Your task to perform on an android device: turn notification dots off Image 0: 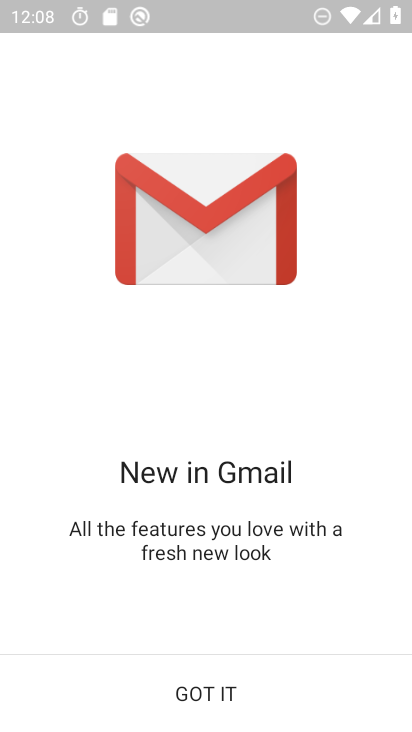
Step 0: press back button
Your task to perform on an android device: turn notification dots off Image 1: 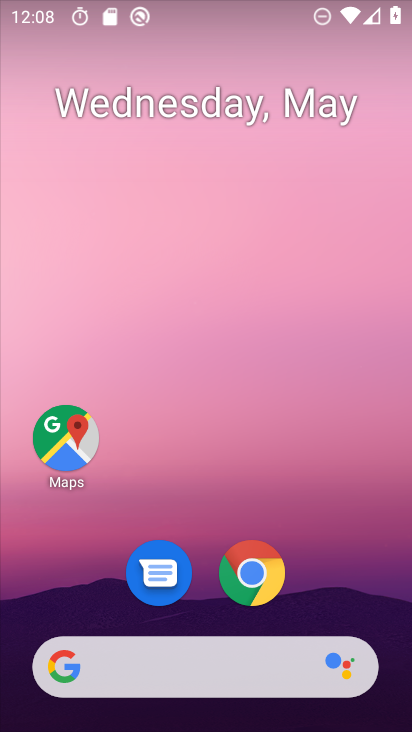
Step 1: drag from (337, 591) to (291, 59)
Your task to perform on an android device: turn notification dots off Image 2: 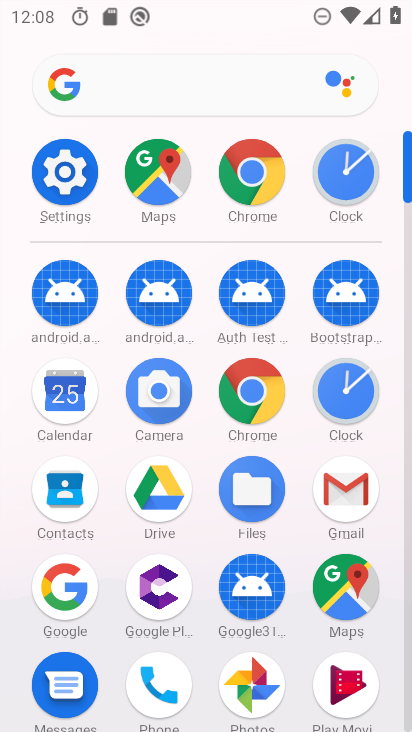
Step 2: click (65, 171)
Your task to perform on an android device: turn notification dots off Image 3: 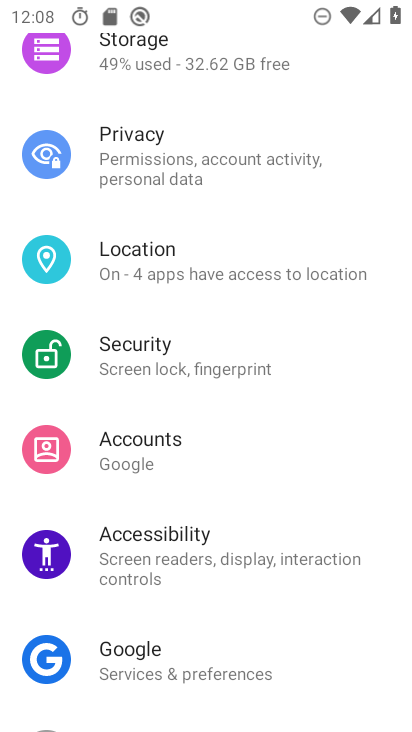
Step 3: drag from (270, 153) to (261, 621)
Your task to perform on an android device: turn notification dots off Image 4: 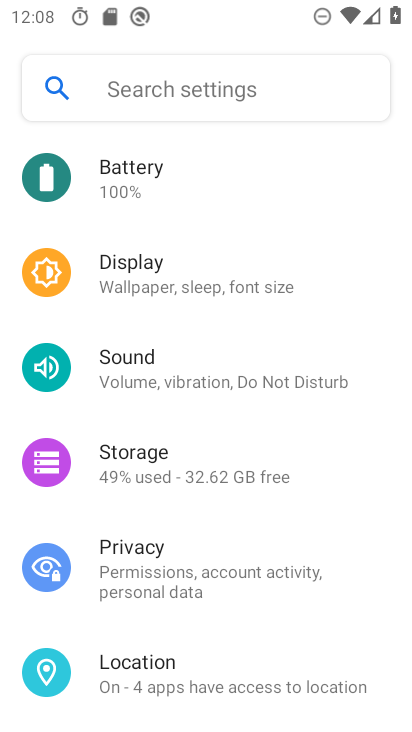
Step 4: drag from (246, 598) to (295, 175)
Your task to perform on an android device: turn notification dots off Image 5: 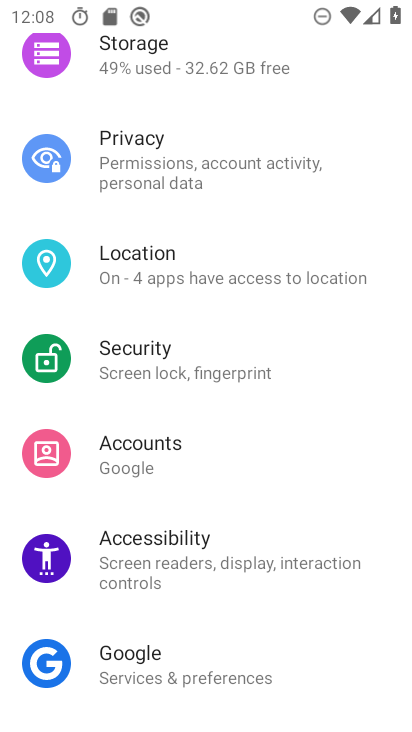
Step 5: drag from (247, 141) to (257, 453)
Your task to perform on an android device: turn notification dots off Image 6: 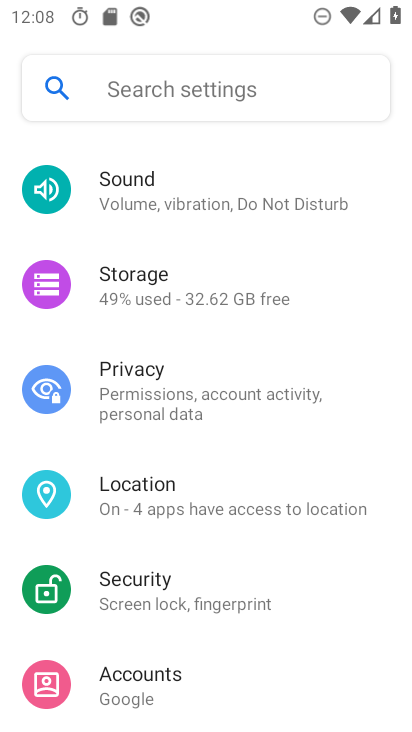
Step 6: drag from (266, 218) to (268, 555)
Your task to perform on an android device: turn notification dots off Image 7: 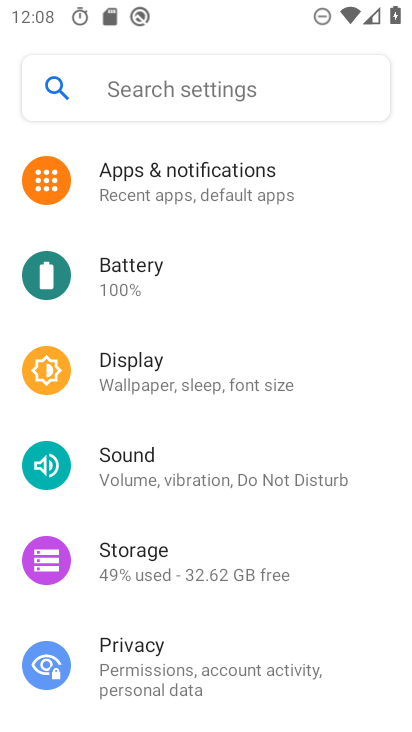
Step 7: click (242, 186)
Your task to perform on an android device: turn notification dots off Image 8: 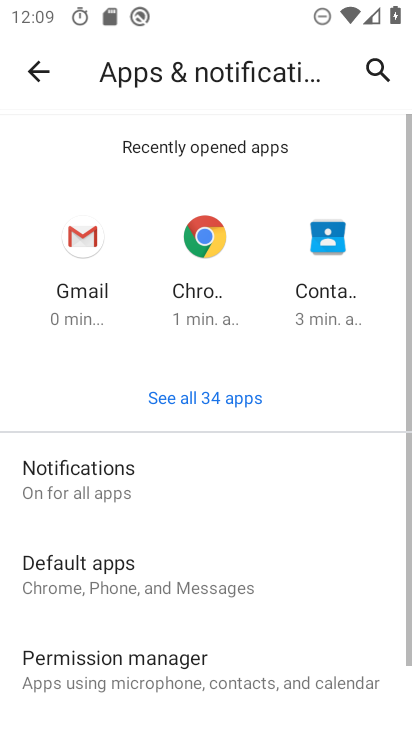
Step 8: drag from (266, 651) to (316, 223)
Your task to perform on an android device: turn notification dots off Image 9: 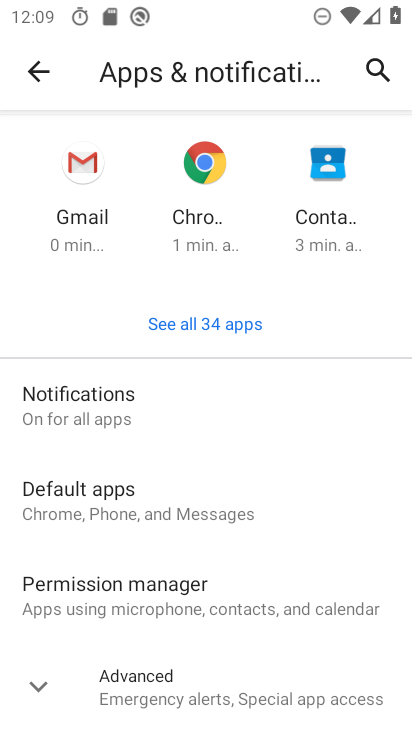
Step 9: click (114, 696)
Your task to perform on an android device: turn notification dots off Image 10: 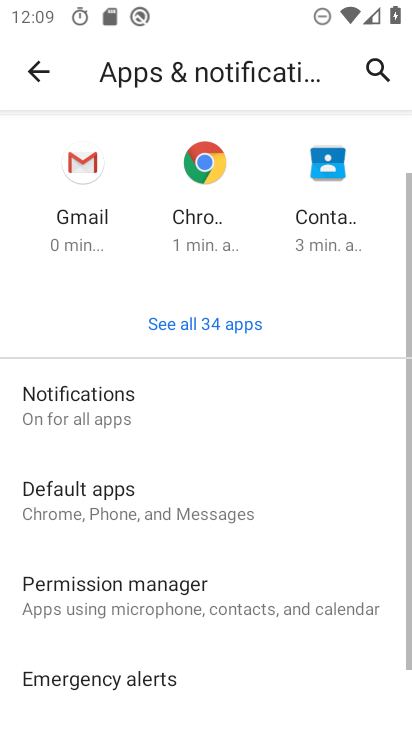
Step 10: drag from (236, 618) to (236, 253)
Your task to perform on an android device: turn notification dots off Image 11: 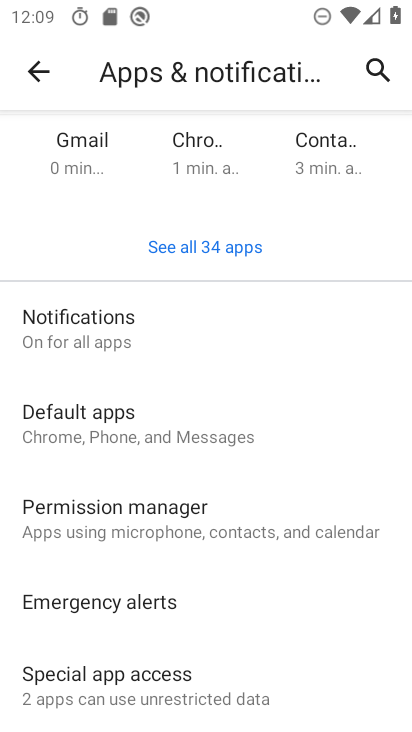
Step 11: click (164, 317)
Your task to perform on an android device: turn notification dots off Image 12: 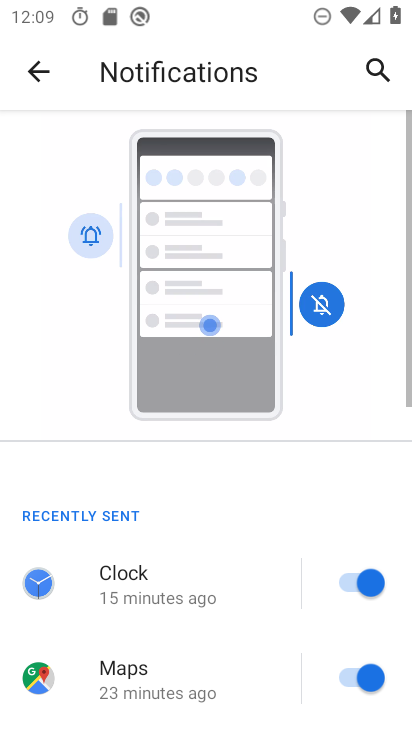
Step 12: drag from (211, 669) to (278, 145)
Your task to perform on an android device: turn notification dots off Image 13: 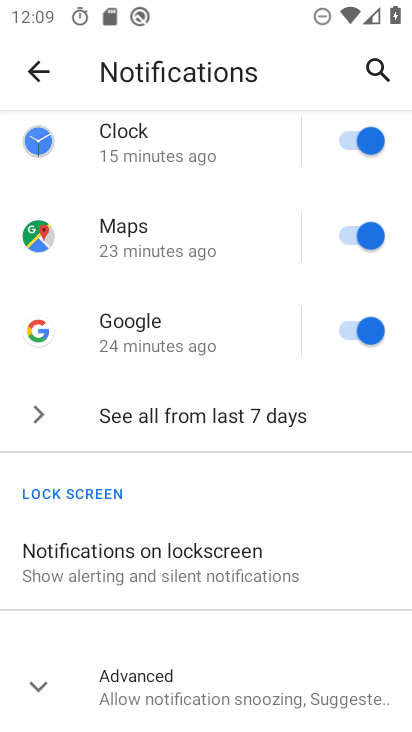
Step 13: click (175, 648)
Your task to perform on an android device: turn notification dots off Image 14: 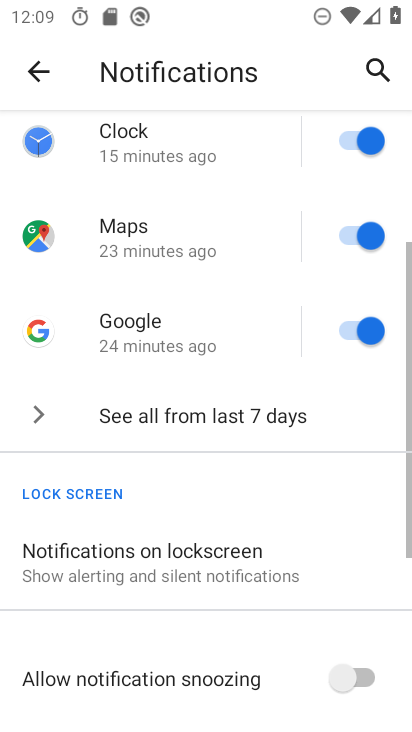
Step 14: drag from (289, 621) to (268, 178)
Your task to perform on an android device: turn notification dots off Image 15: 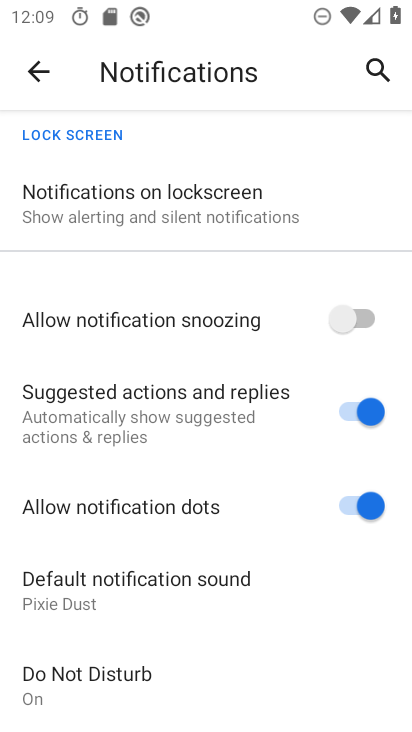
Step 15: click (341, 512)
Your task to perform on an android device: turn notification dots off Image 16: 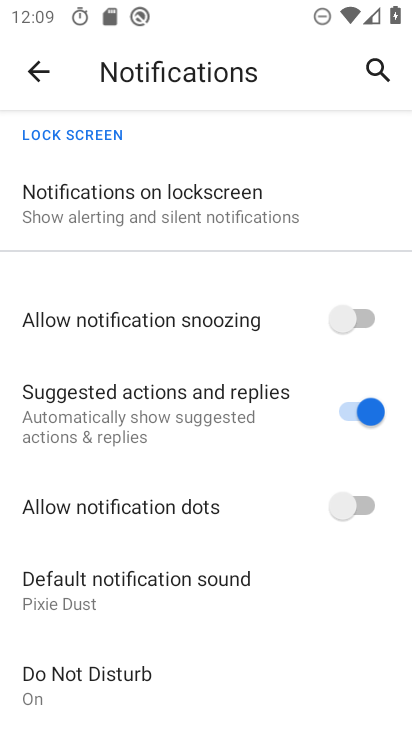
Step 16: task complete